Your task to perform on an android device: Clear all items from cart on amazon. Image 0: 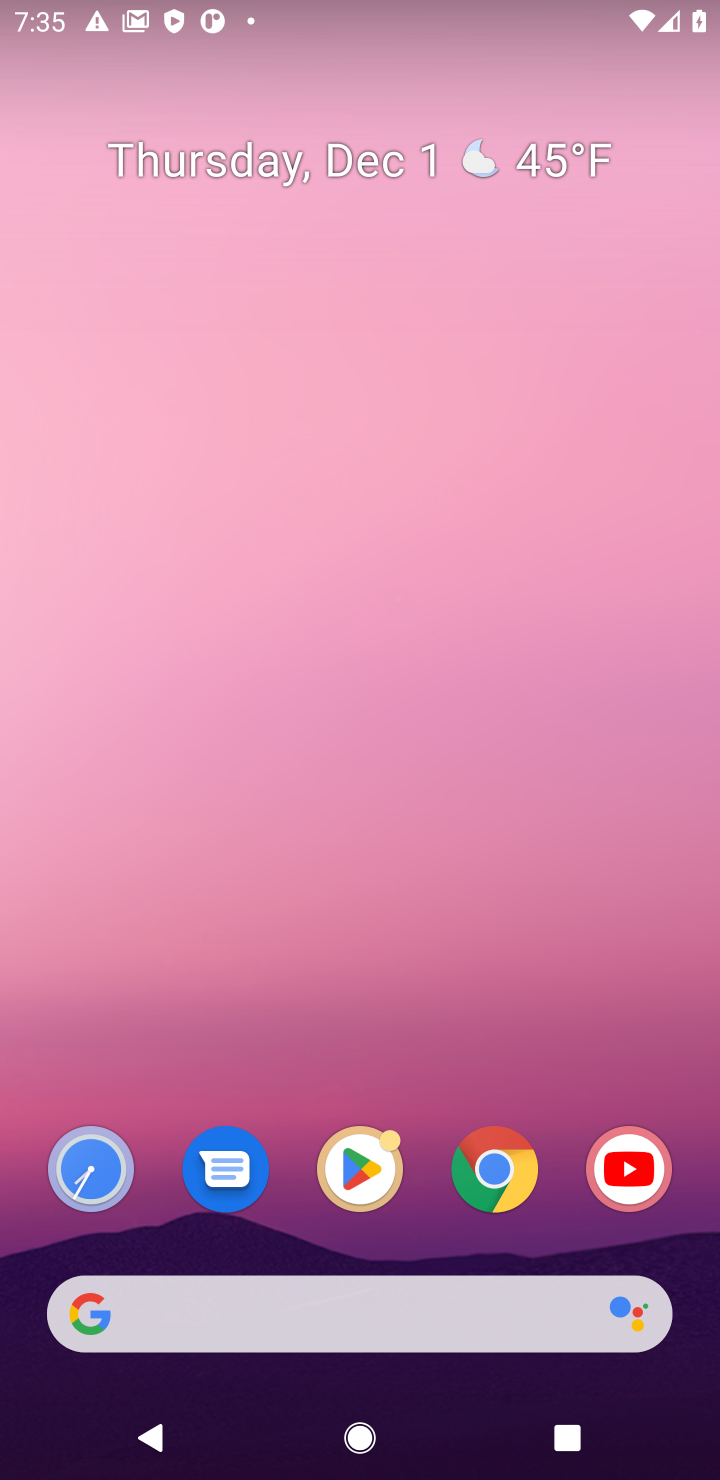
Step 0: click (504, 1173)
Your task to perform on an android device: Clear all items from cart on amazon. Image 1: 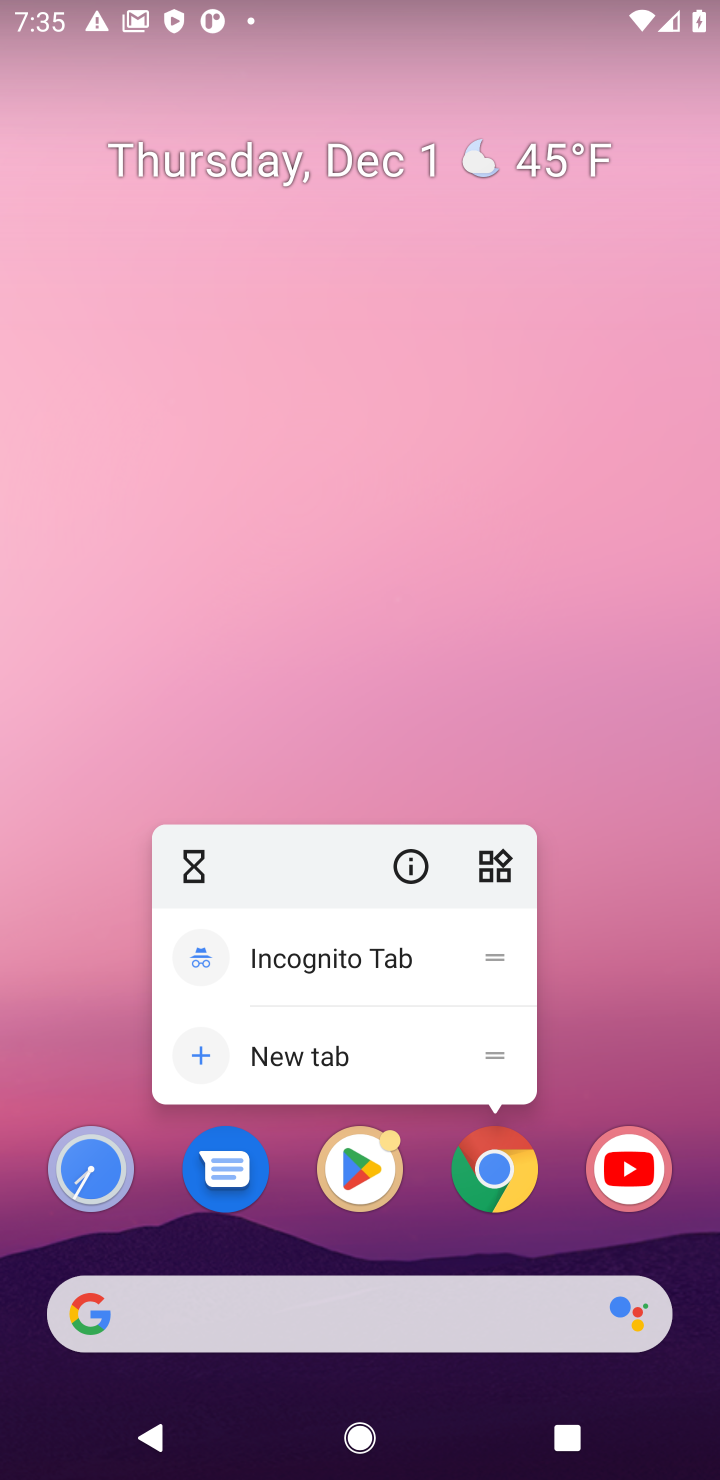
Step 1: click (509, 1171)
Your task to perform on an android device: Clear all items from cart on amazon. Image 2: 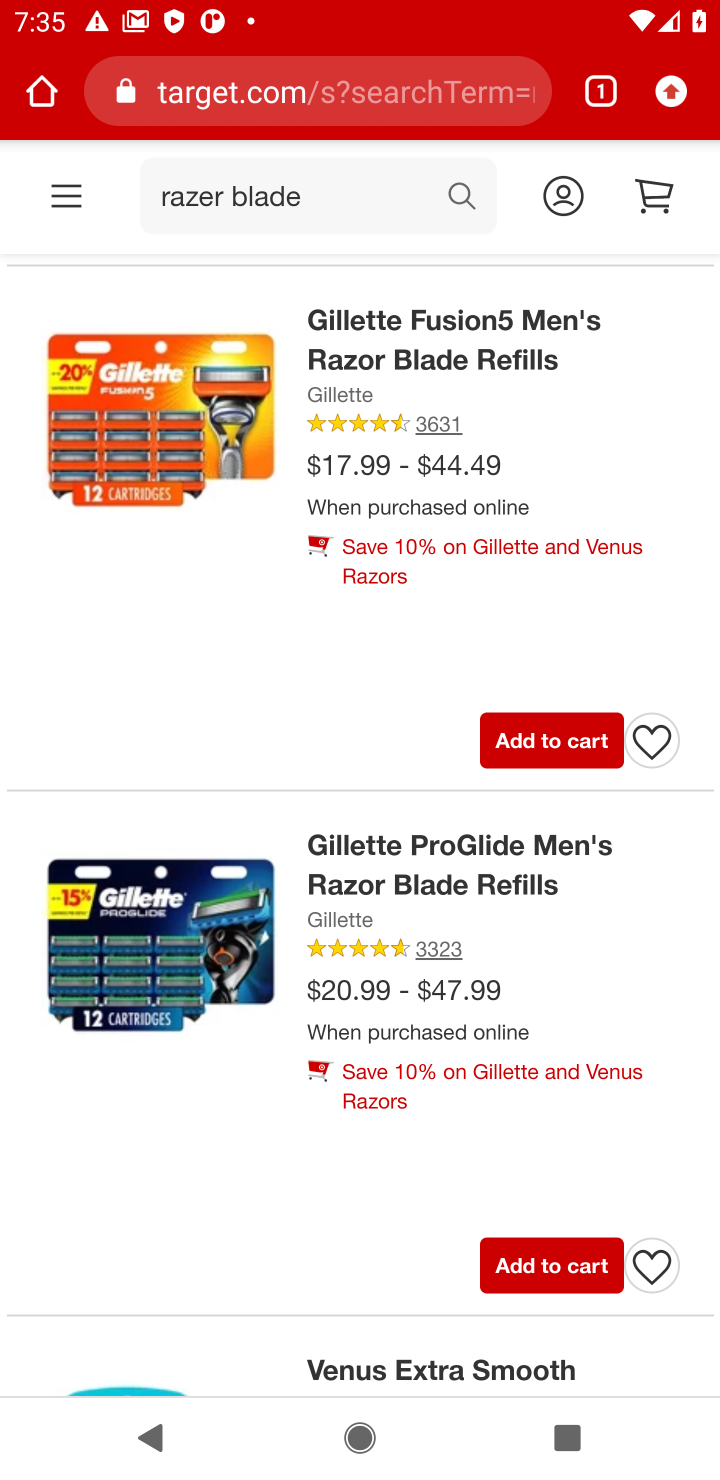
Step 2: click (410, 89)
Your task to perform on an android device: Clear all items from cart on amazon. Image 3: 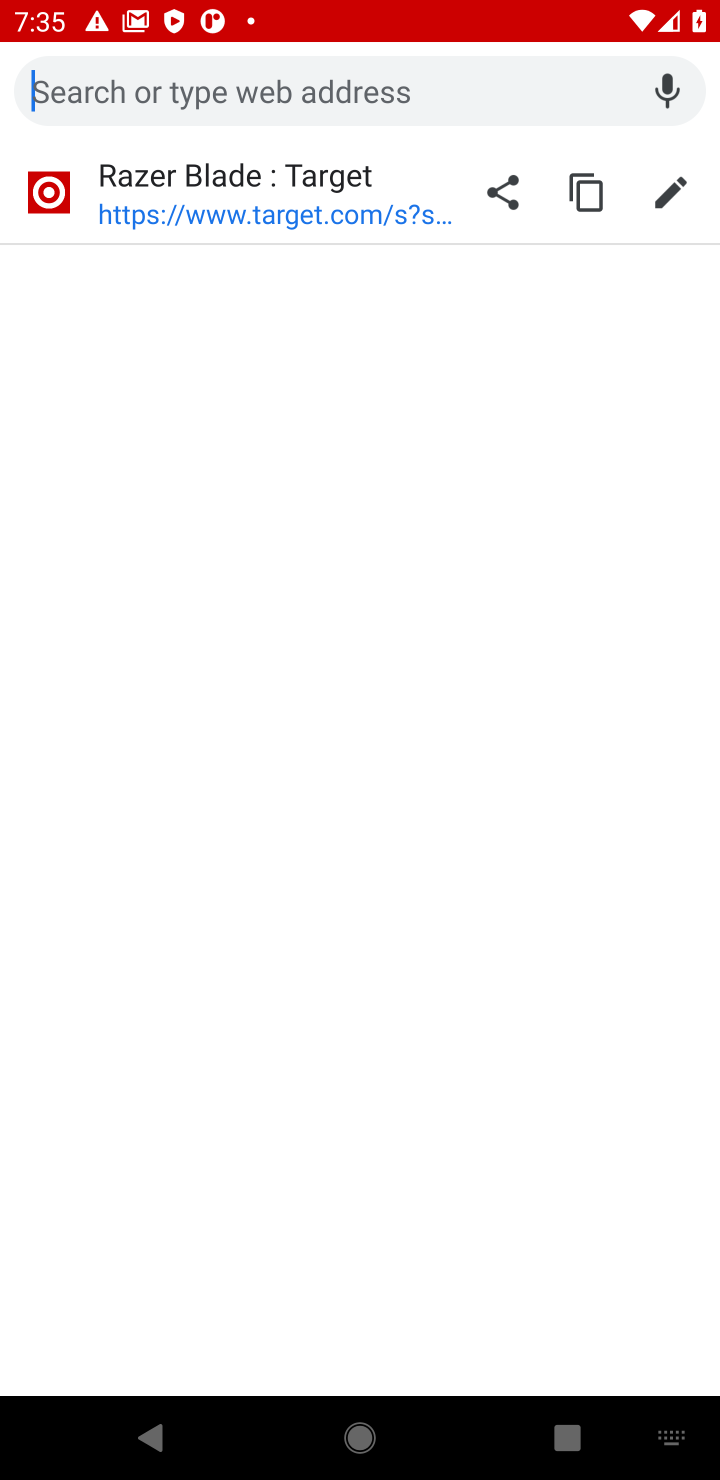
Step 3: type "amazon"
Your task to perform on an android device: Clear all items from cart on amazon. Image 4: 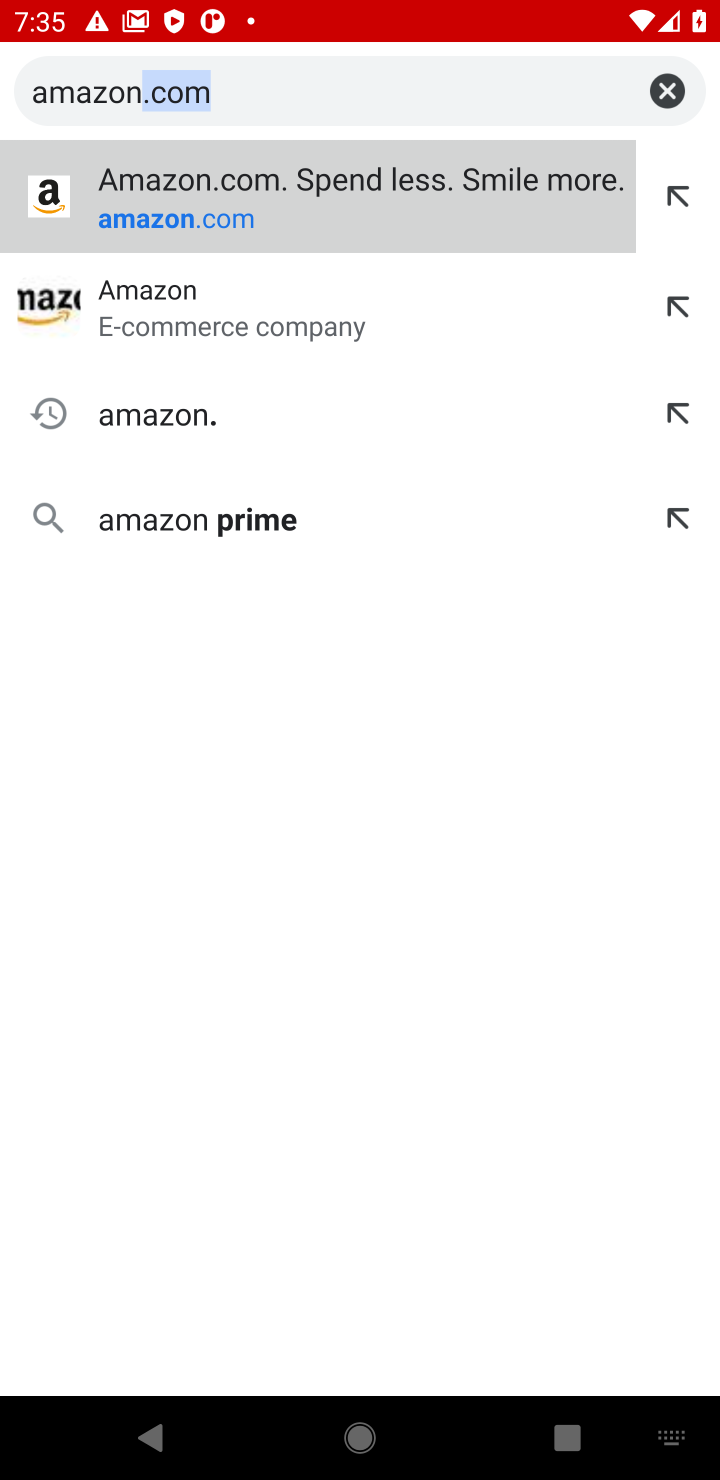
Step 4: click (534, 85)
Your task to perform on an android device: Clear all items from cart on amazon. Image 5: 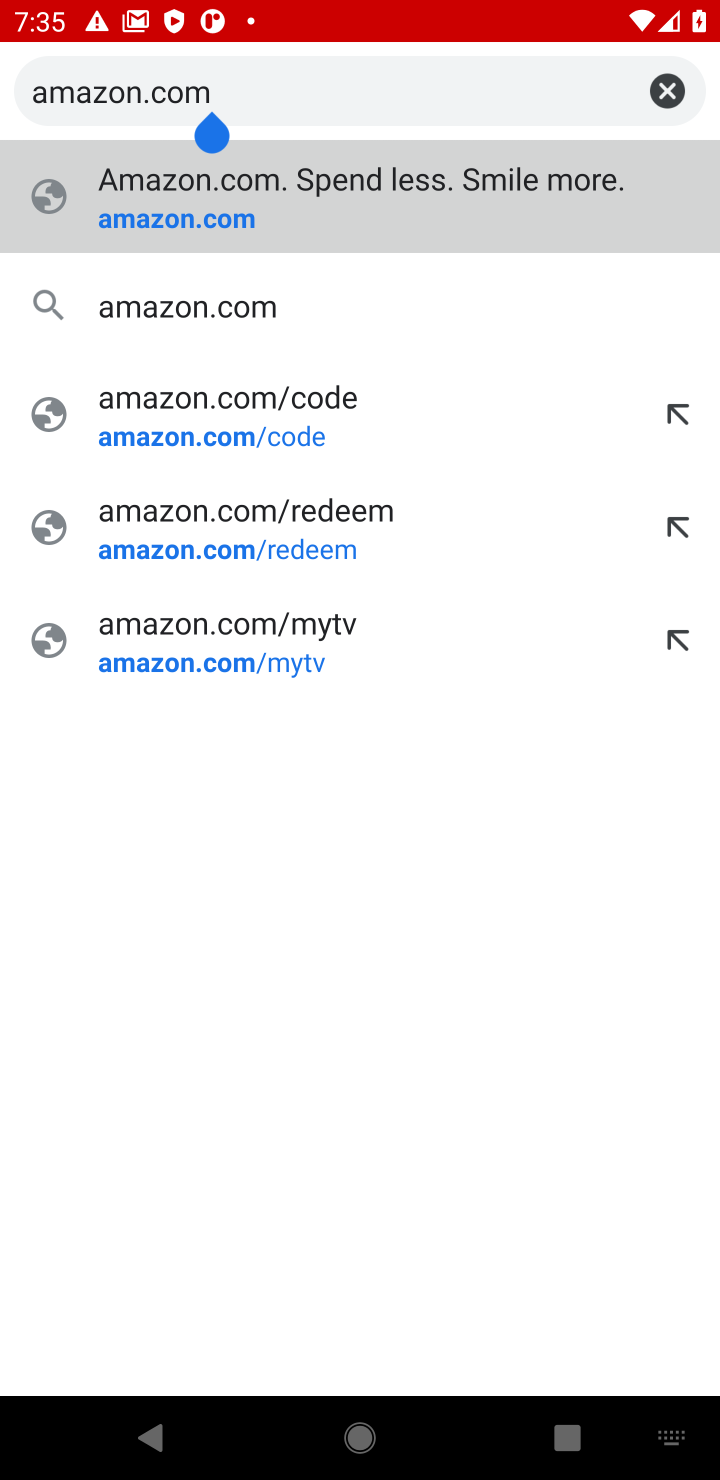
Step 5: click (206, 294)
Your task to perform on an android device: Clear all items from cart on amazon. Image 6: 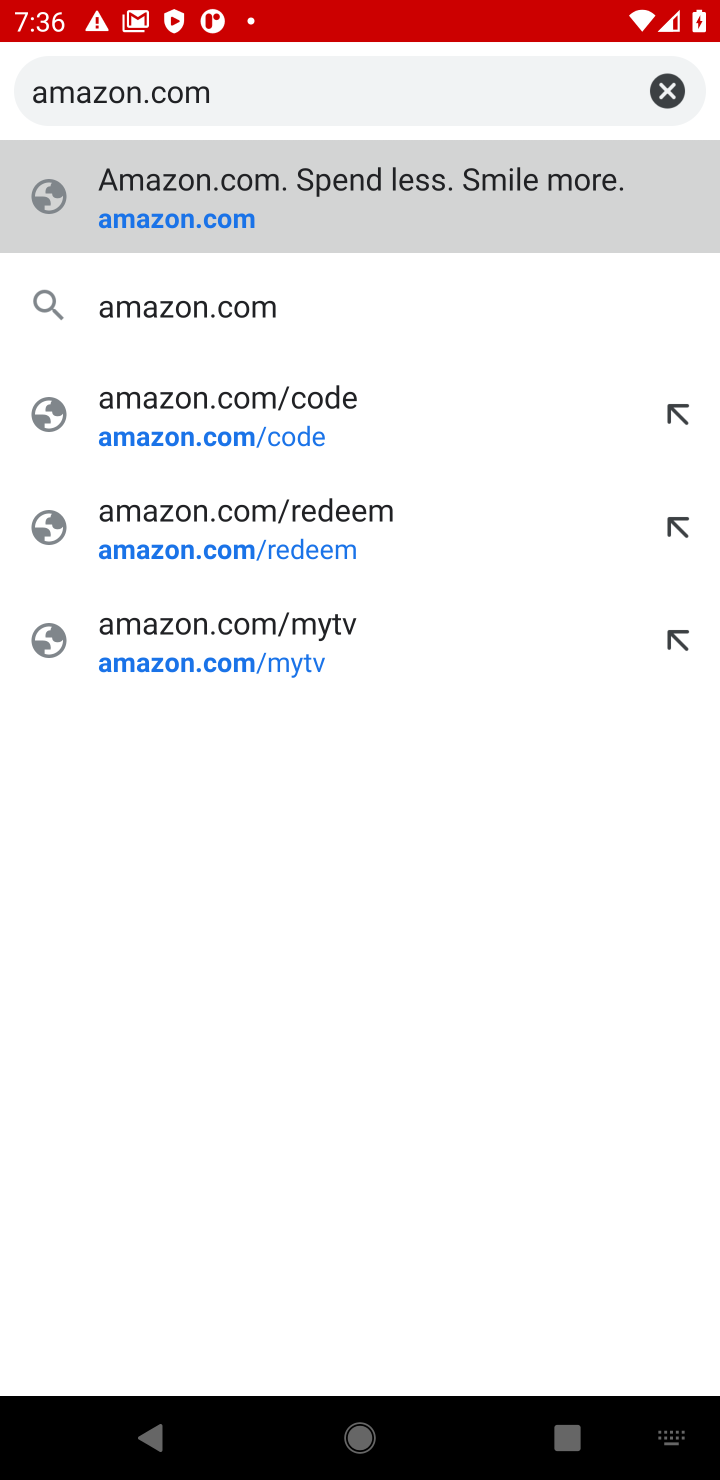
Step 6: click (204, 314)
Your task to perform on an android device: Clear all items from cart on amazon. Image 7: 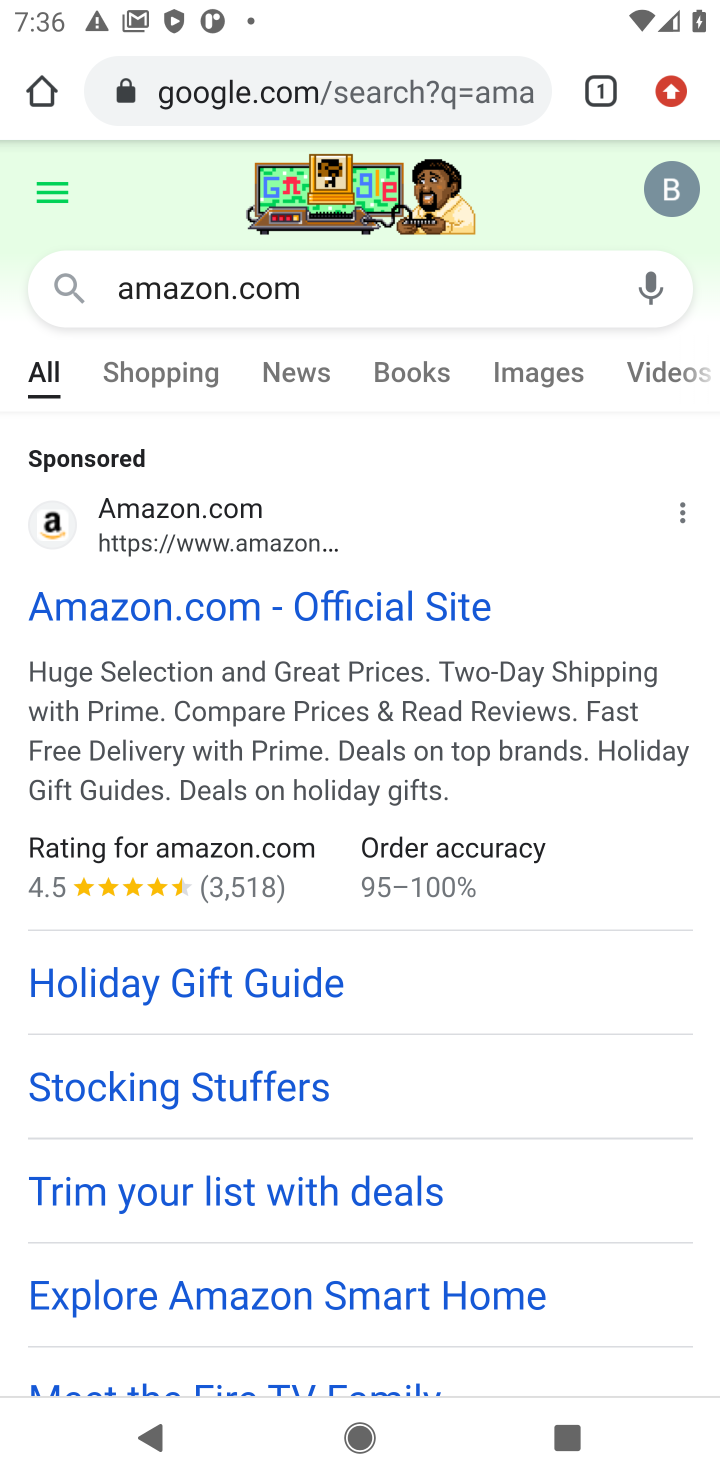
Step 7: click (168, 500)
Your task to perform on an android device: Clear all items from cart on amazon. Image 8: 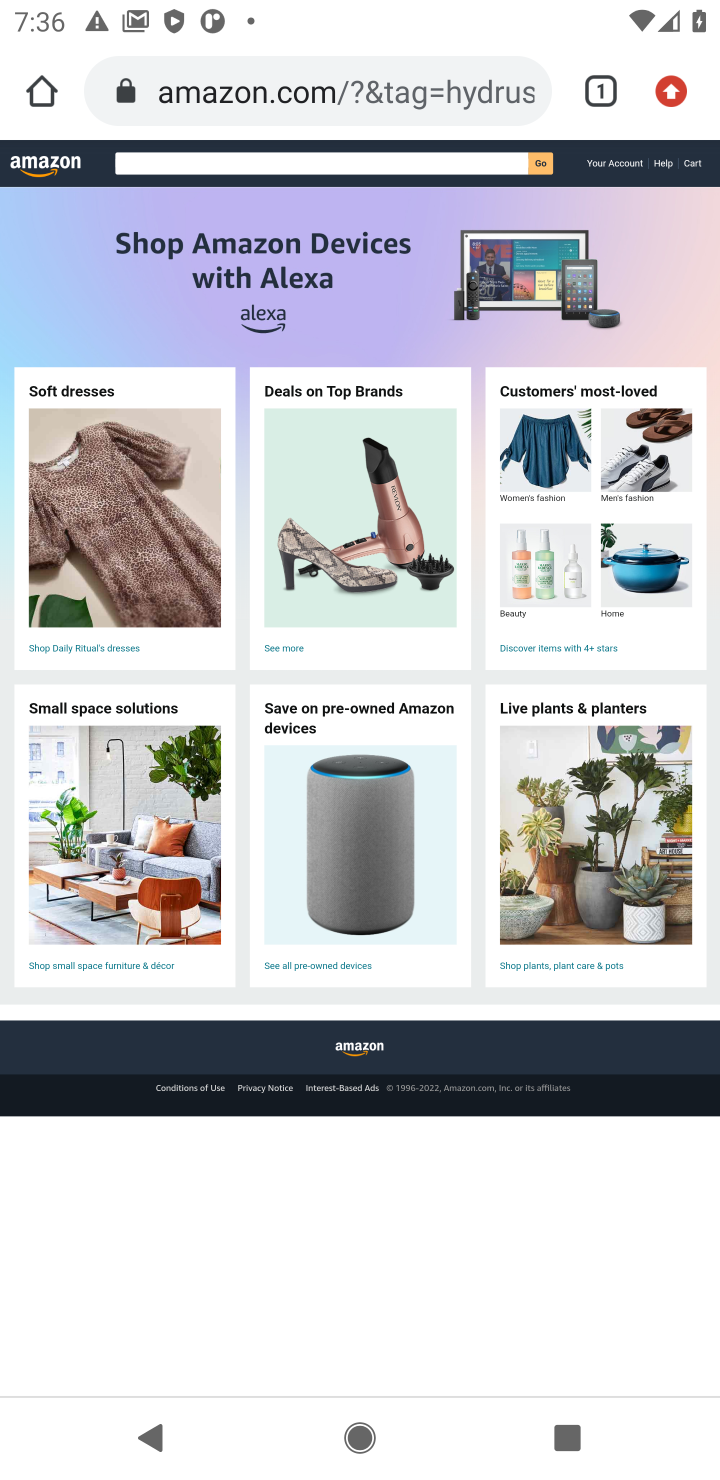
Step 8: drag from (392, 236) to (393, 902)
Your task to perform on an android device: Clear all items from cart on amazon. Image 9: 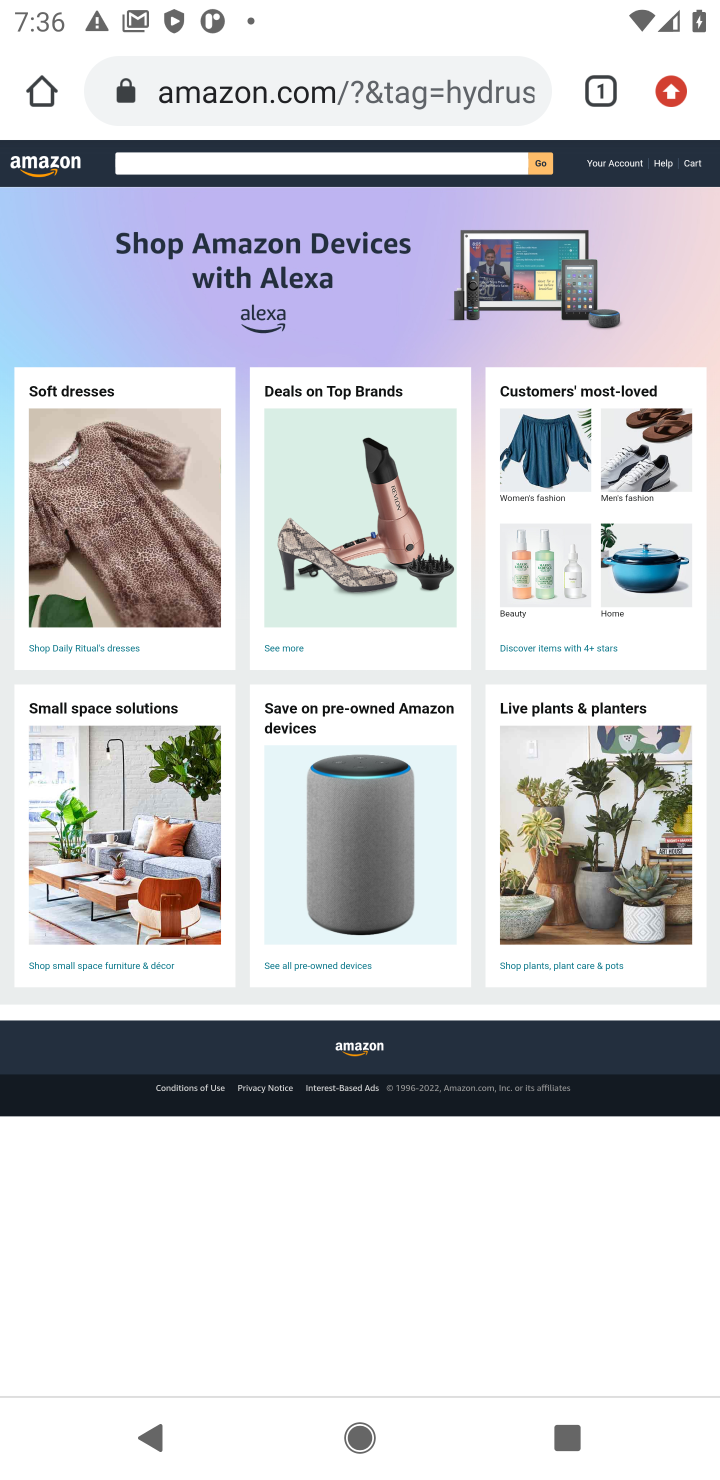
Step 9: click (690, 167)
Your task to perform on an android device: Clear all items from cart on amazon. Image 10: 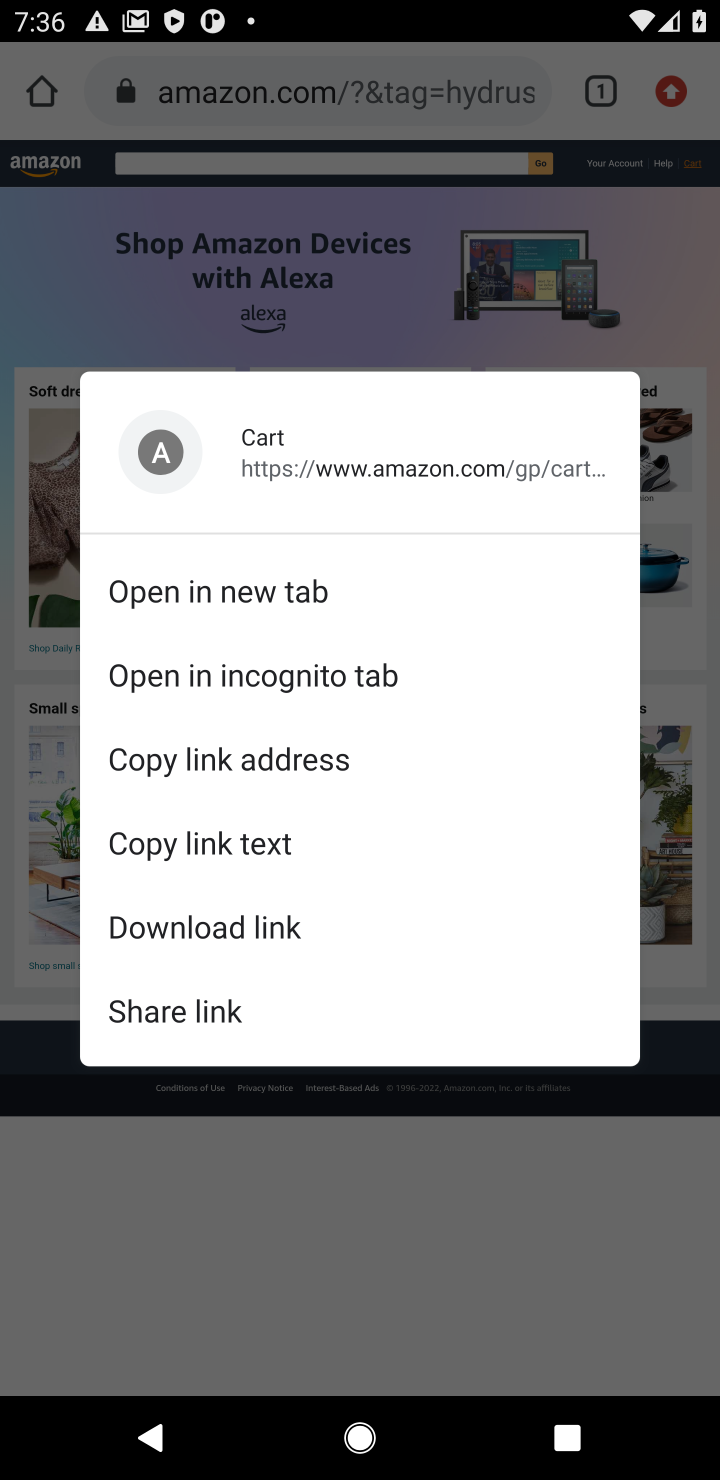
Step 10: click (656, 167)
Your task to perform on an android device: Clear all items from cart on amazon. Image 11: 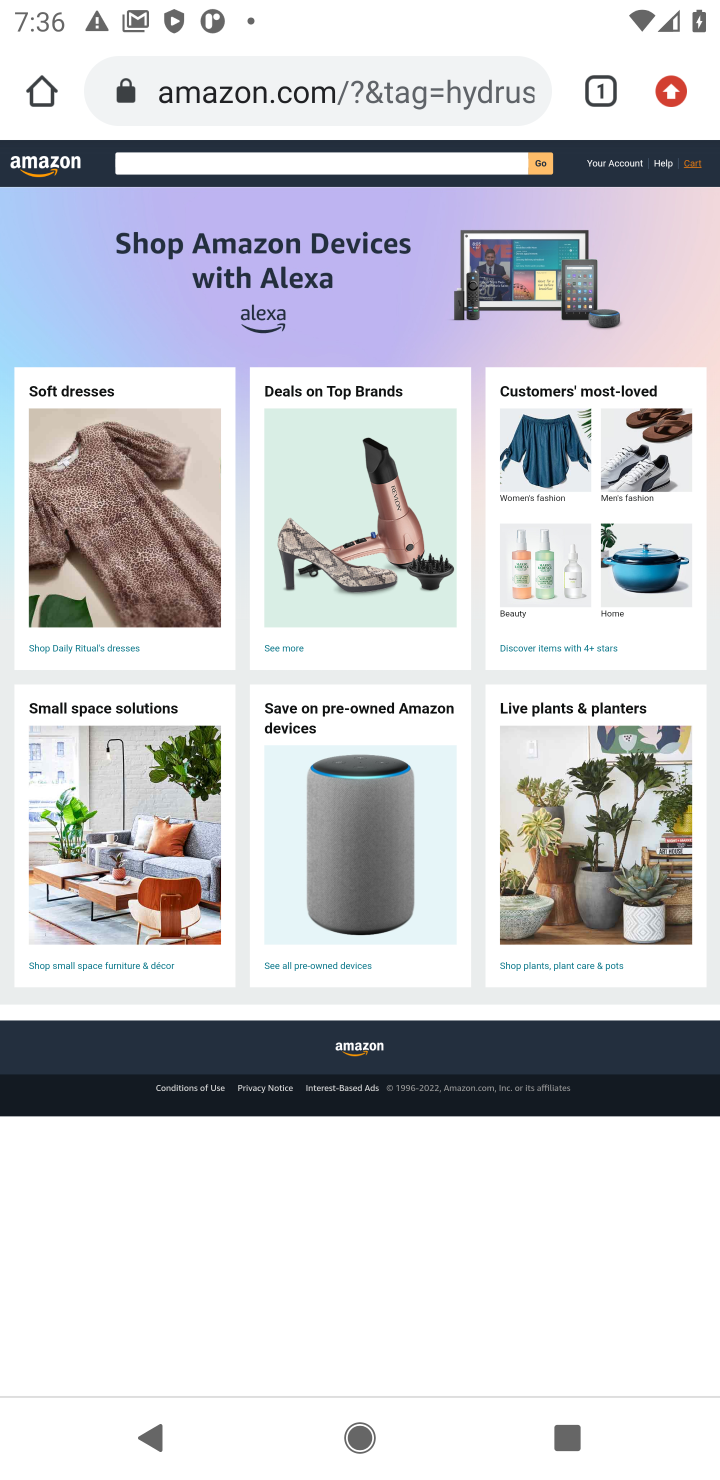
Step 11: click (624, 163)
Your task to perform on an android device: Clear all items from cart on amazon. Image 12: 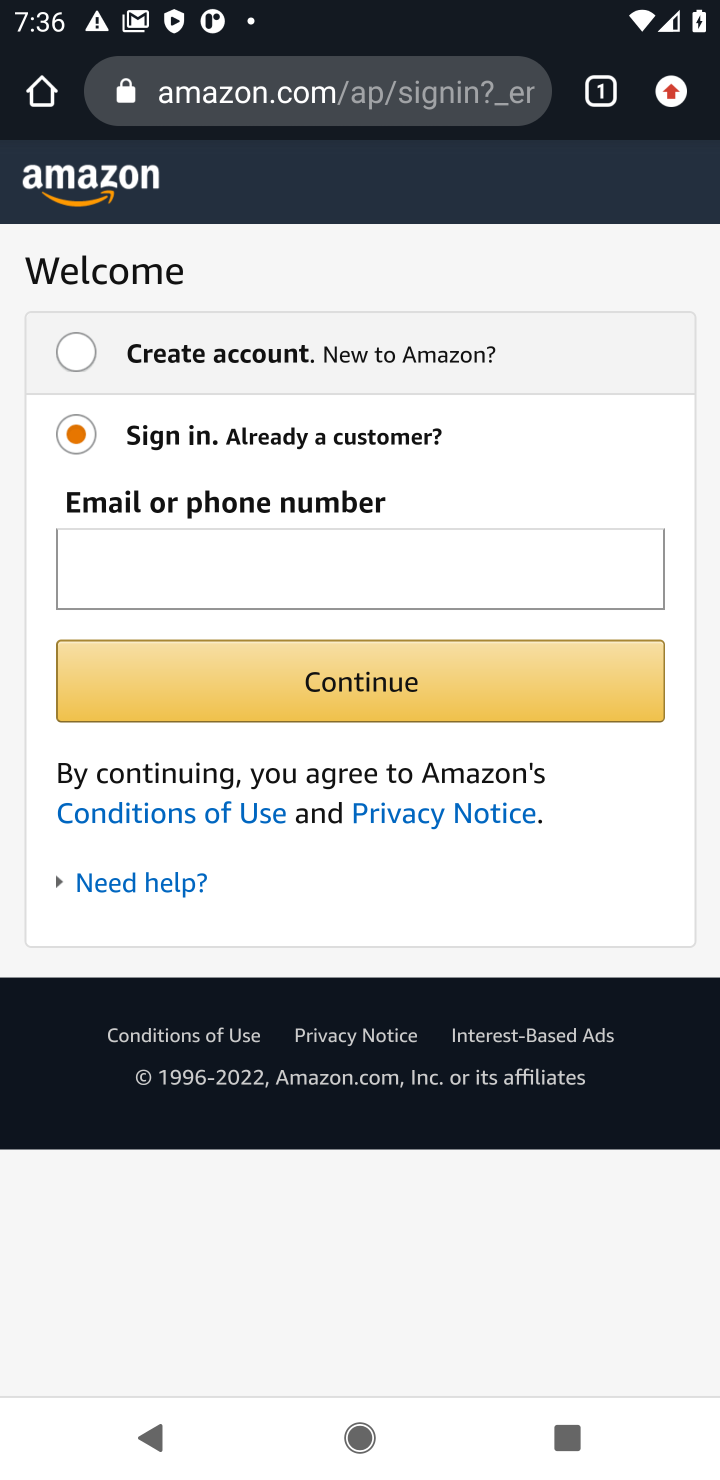
Step 12: task complete